Your task to perform on an android device: How do I get to the nearest Nordstrom? Image 0: 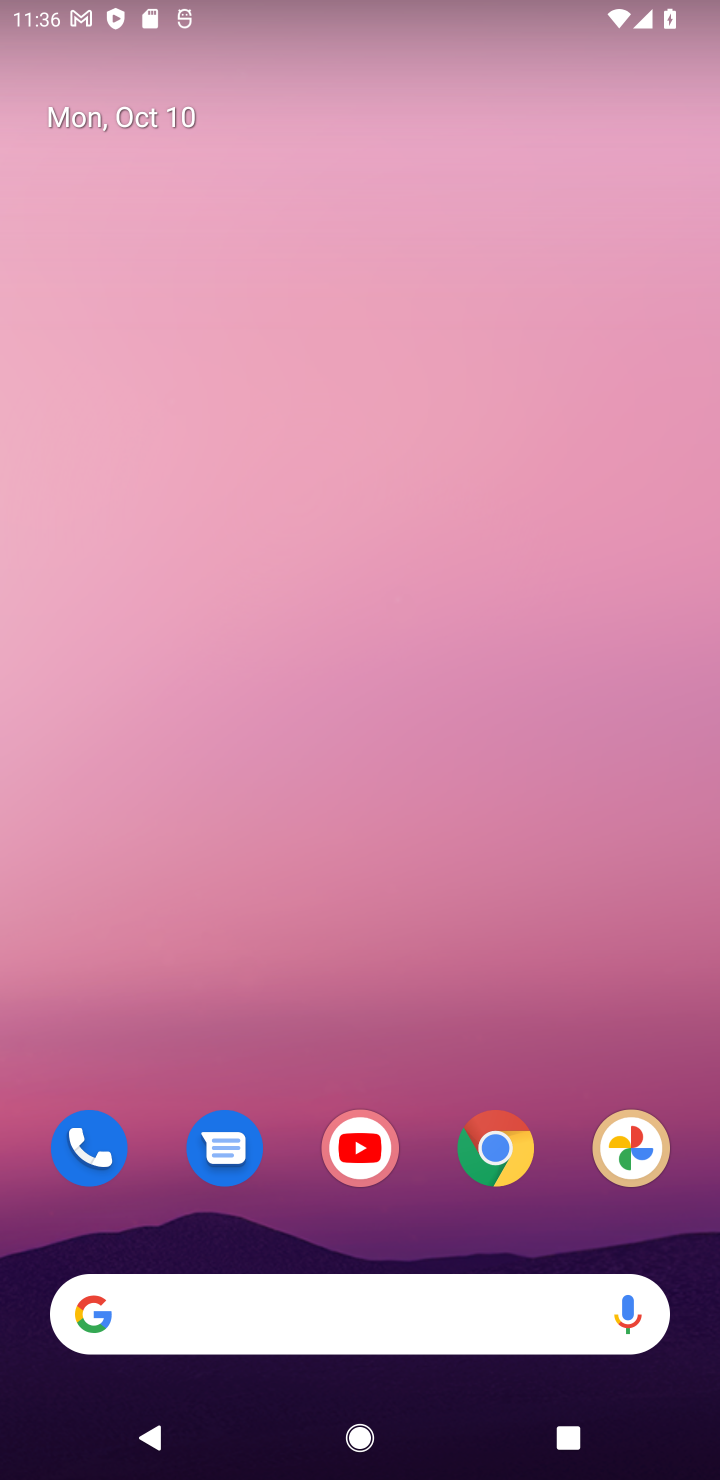
Step 0: drag from (332, 475) to (329, 198)
Your task to perform on an android device: How do I get to the nearest Nordstrom? Image 1: 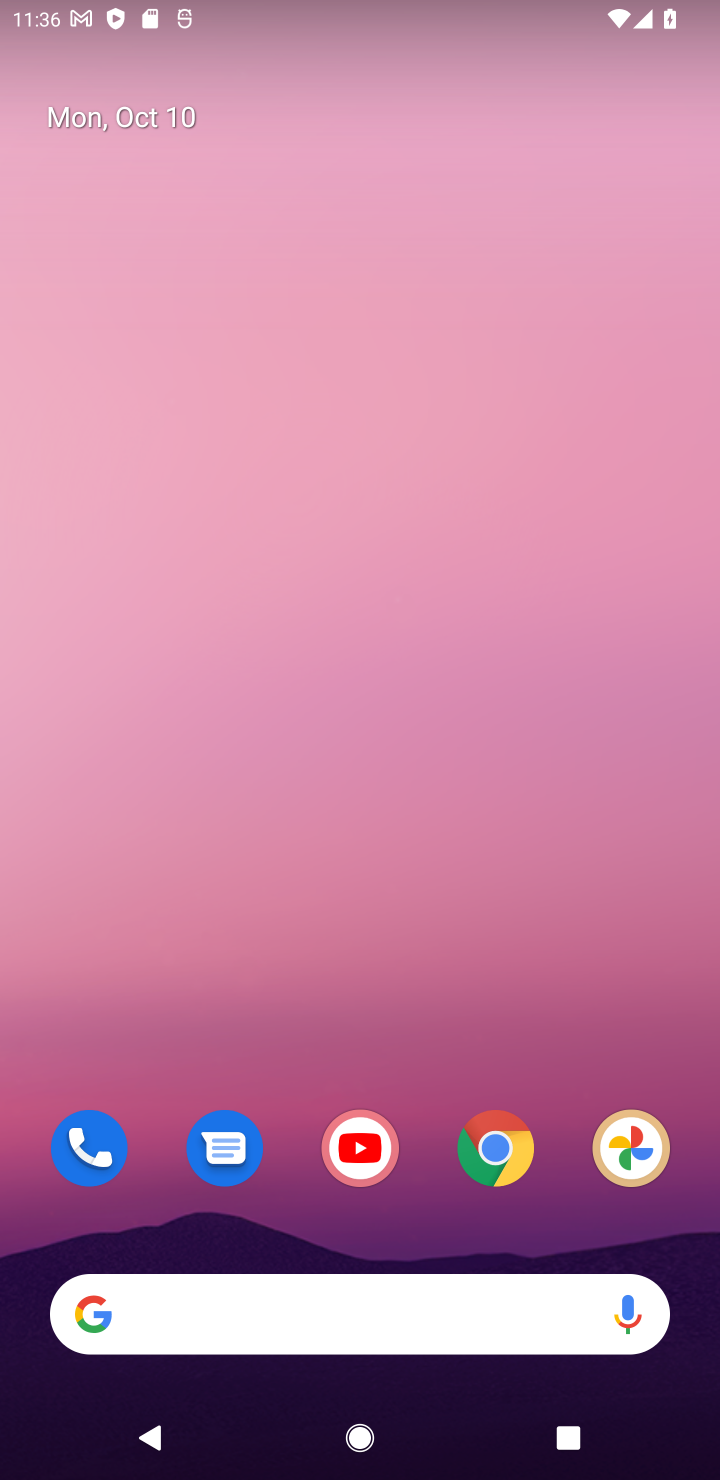
Step 1: drag from (404, 919) to (396, 592)
Your task to perform on an android device: How do I get to the nearest Nordstrom? Image 2: 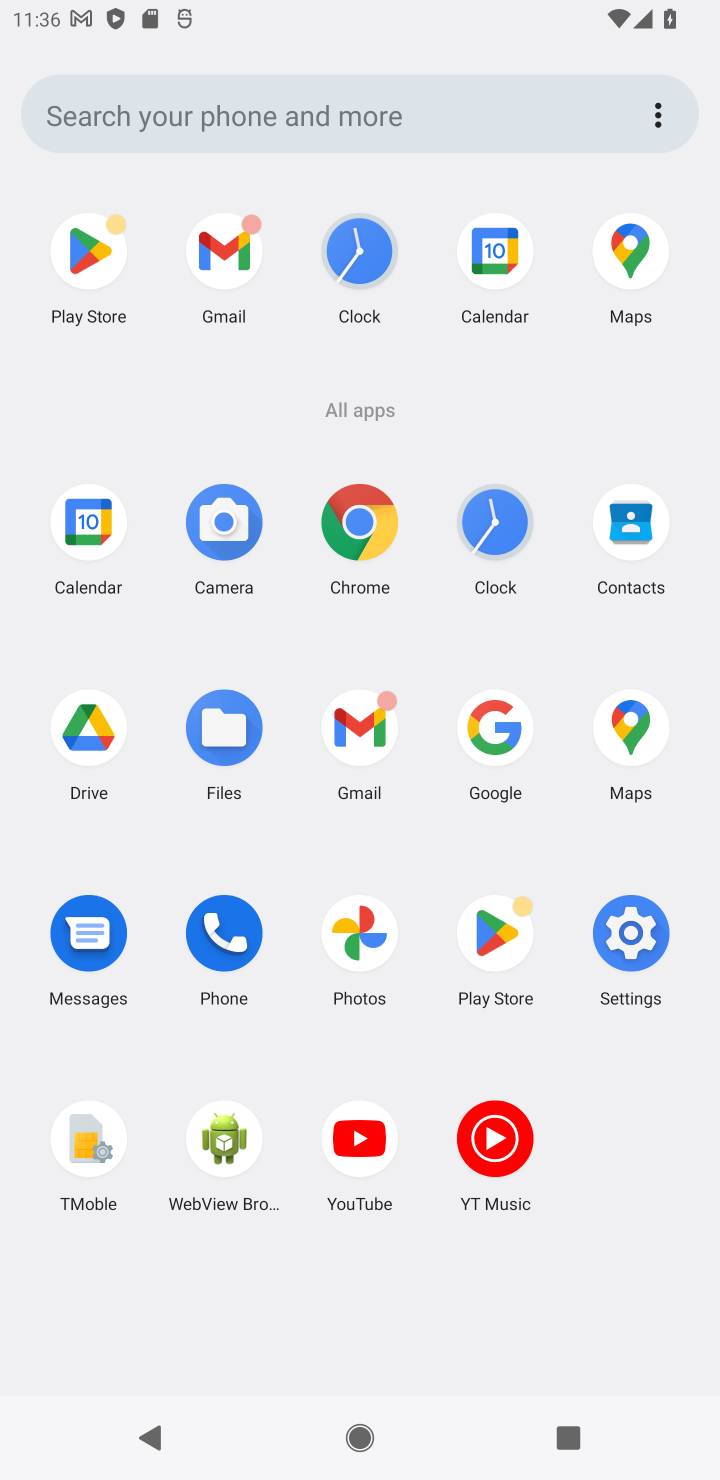
Step 2: click (471, 745)
Your task to perform on an android device: How do I get to the nearest Nordstrom? Image 3: 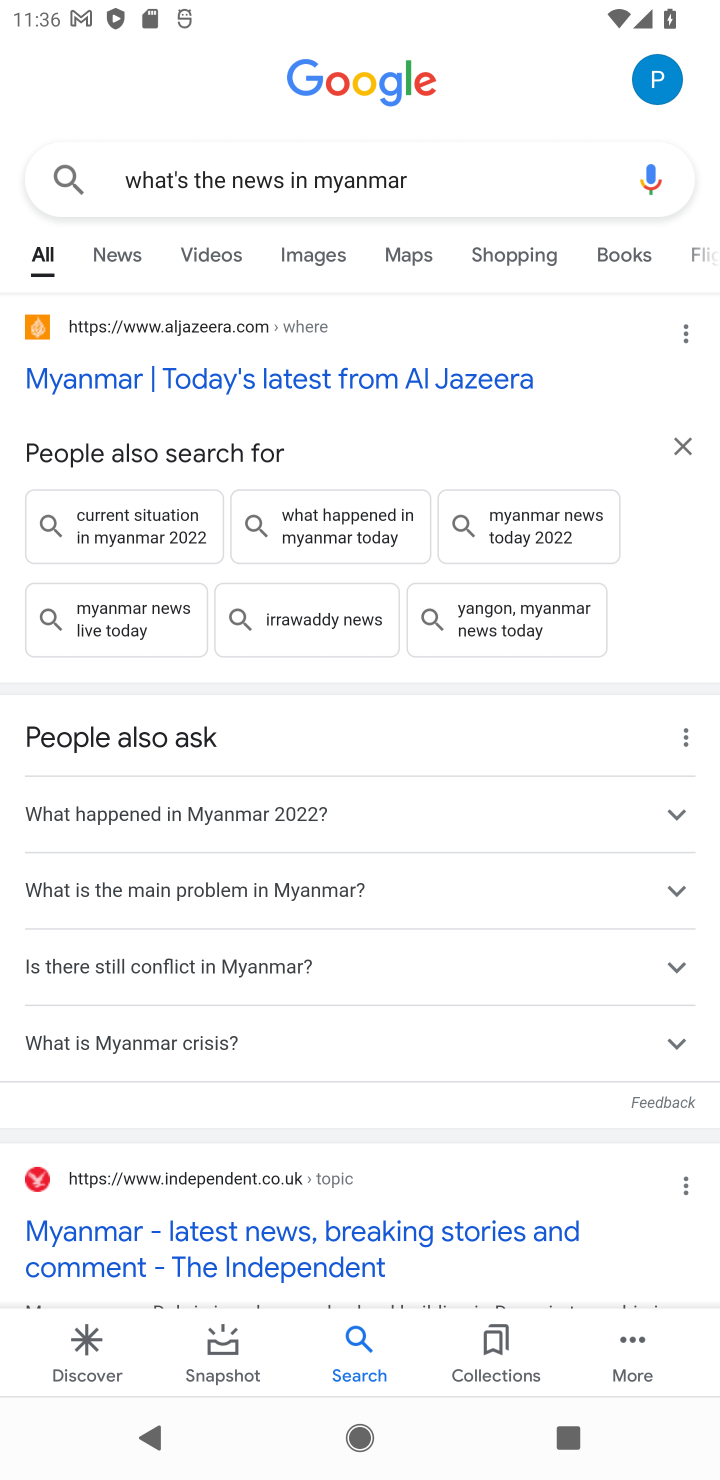
Step 3: click (366, 184)
Your task to perform on an android device: How do I get to the nearest Nordstrom? Image 4: 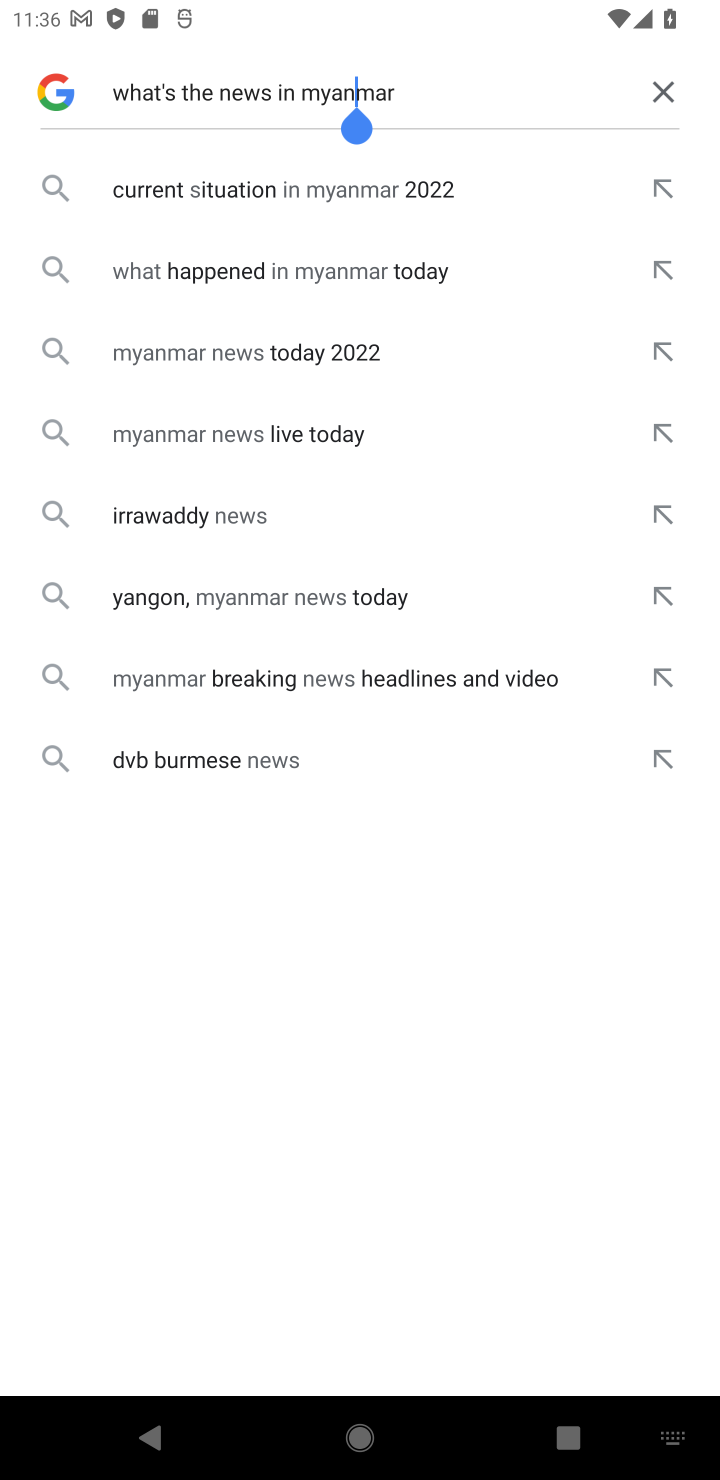
Step 4: click (666, 94)
Your task to perform on an android device: How do I get to the nearest Nordstrom? Image 5: 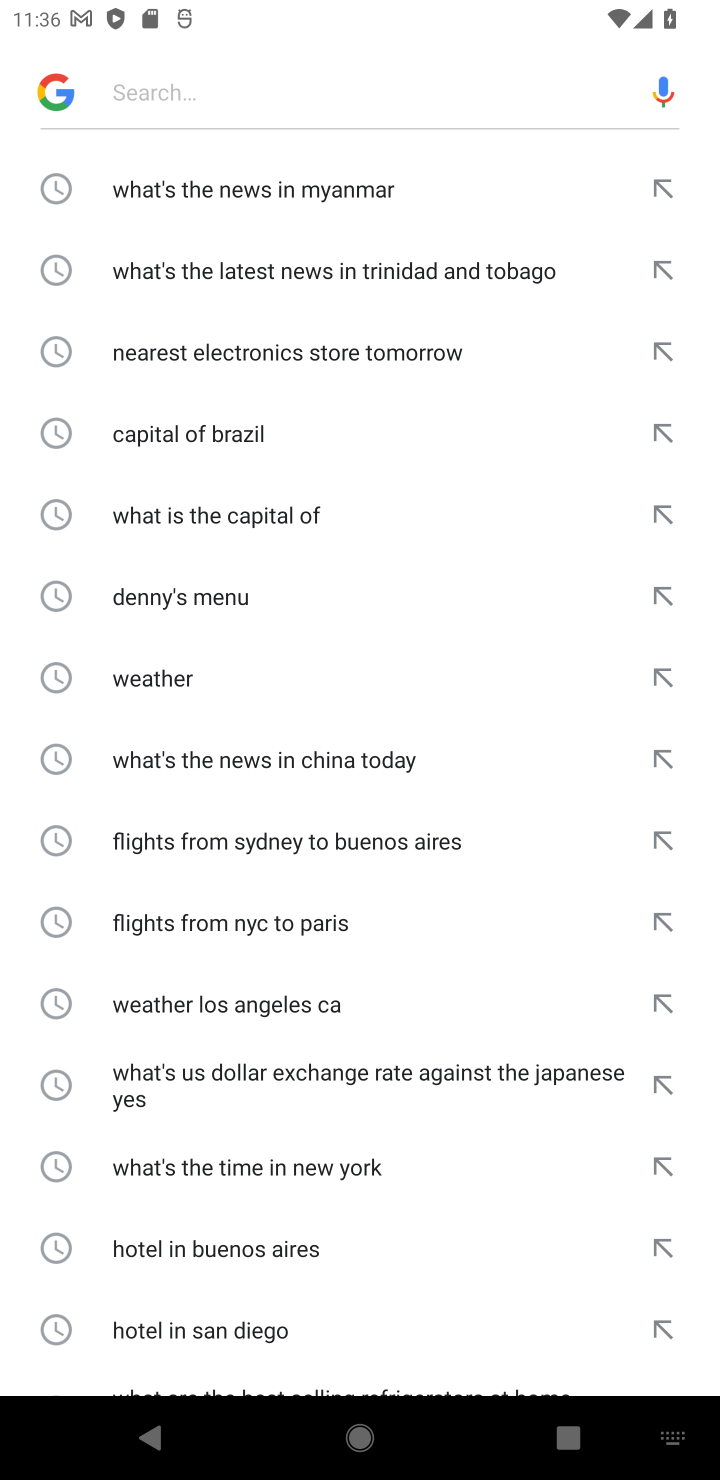
Step 5: type "How do I get to the nearest Nordstrom?"
Your task to perform on an android device: How do I get to the nearest Nordstrom? Image 6: 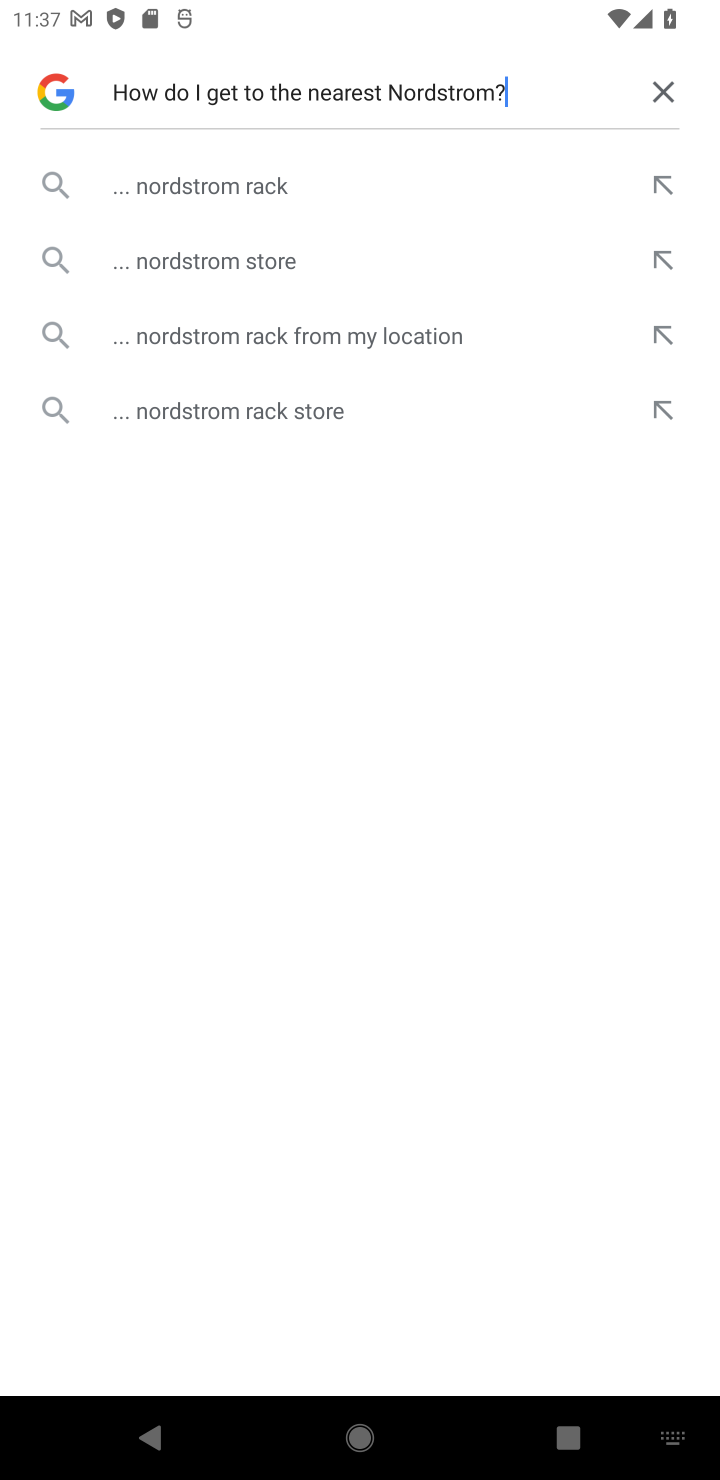
Step 6: click (253, 186)
Your task to perform on an android device: How do I get to the nearest Nordstrom? Image 7: 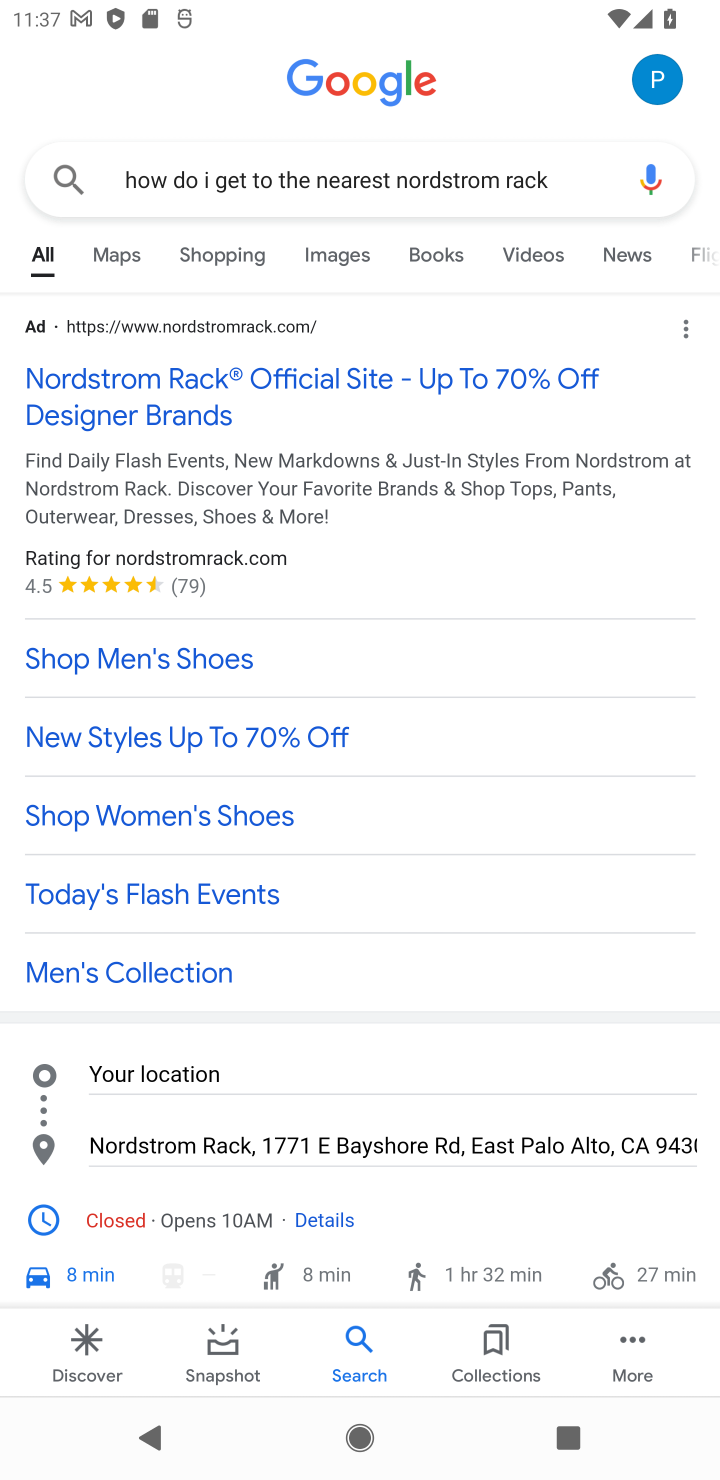
Step 7: click (334, 390)
Your task to perform on an android device: How do I get to the nearest Nordstrom? Image 8: 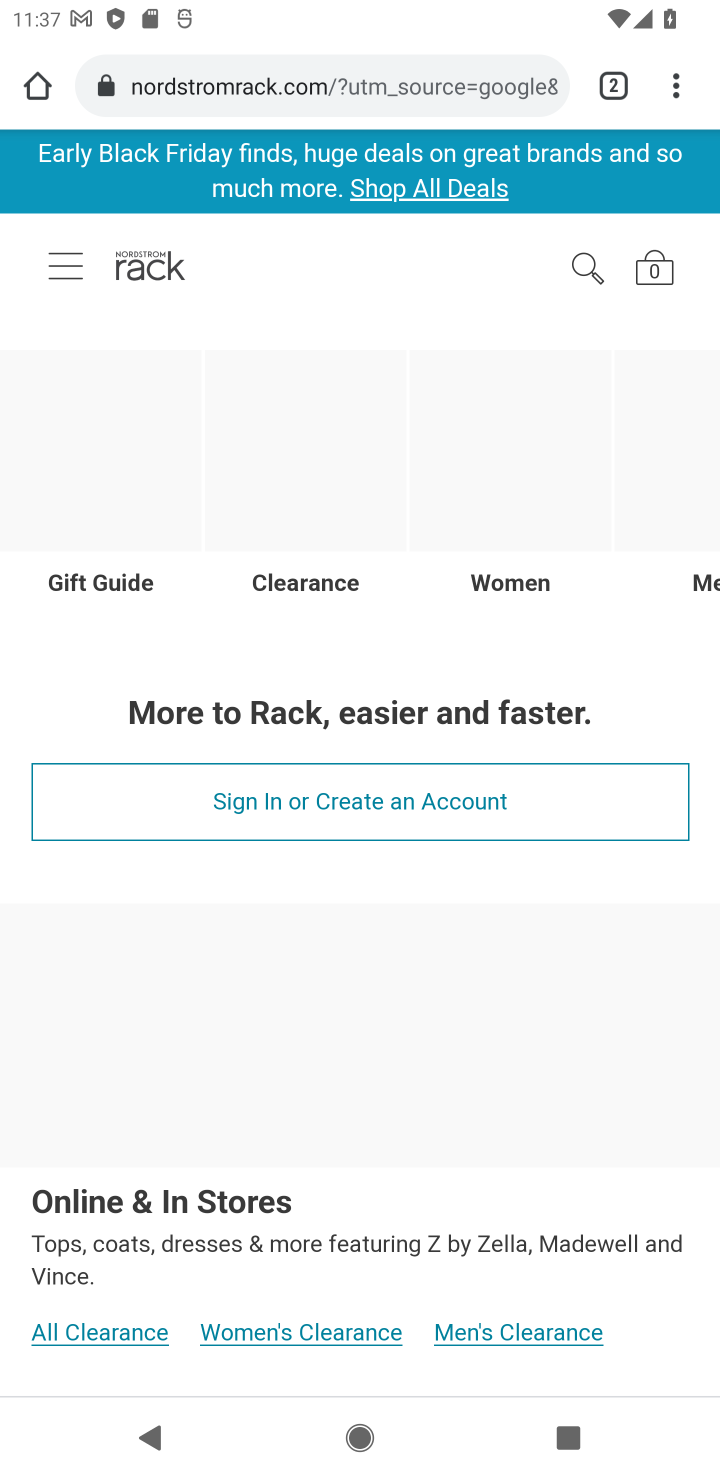
Step 8: task complete